Your task to perform on an android device: Clear all items from cart on newegg. Image 0: 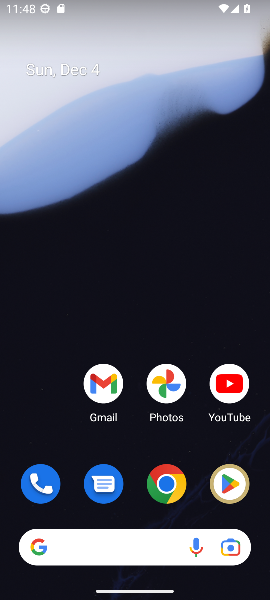
Step 0: click (170, 489)
Your task to perform on an android device: Clear all items from cart on newegg. Image 1: 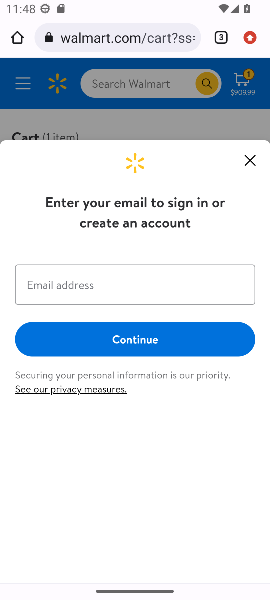
Step 1: click (113, 40)
Your task to perform on an android device: Clear all items from cart on newegg. Image 2: 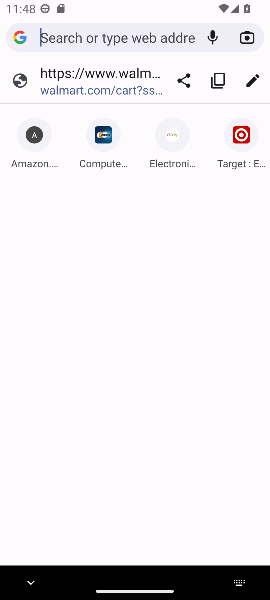
Step 2: click (104, 161)
Your task to perform on an android device: Clear all items from cart on newegg. Image 3: 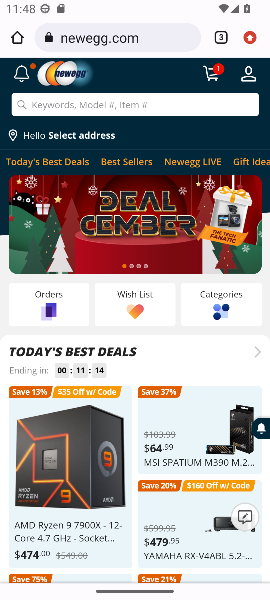
Step 3: click (212, 77)
Your task to perform on an android device: Clear all items from cart on newegg. Image 4: 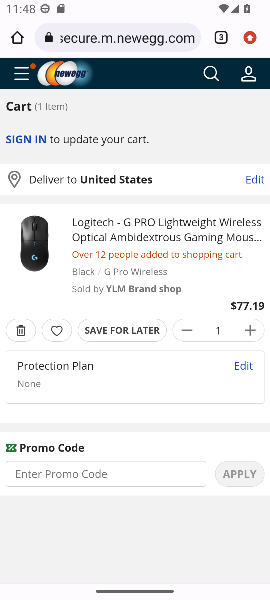
Step 4: click (24, 332)
Your task to perform on an android device: Clear all items from cart on newegg. Image 5: 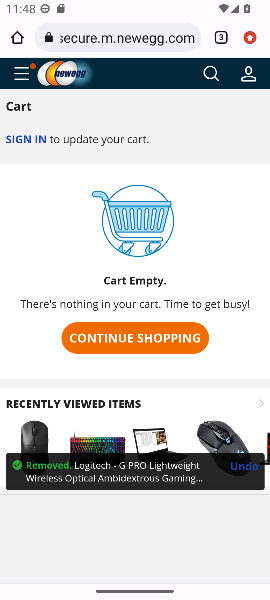
Step 5: task complete